Your task to perform on an android device: Is it going to rain tomorrow? Image 0: 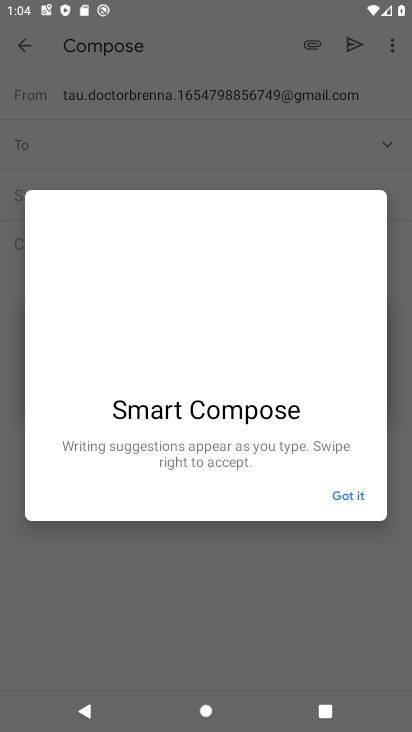
Step 0: press home button
Your task to perform on an android device: Is it going to rain tomorrow? Image 1: 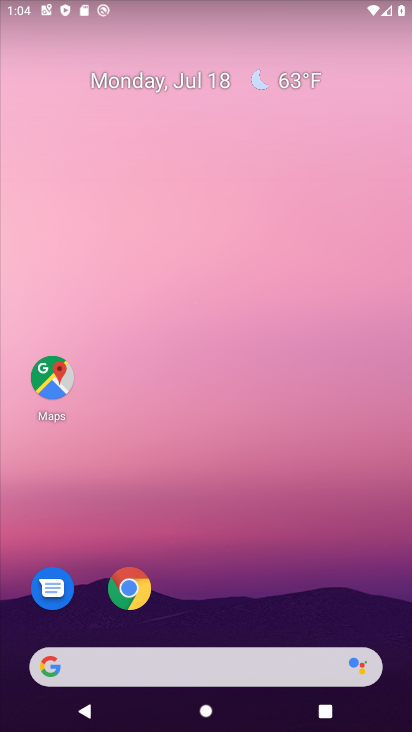
Step 1: click (188, 651)
Your task to perform on an android device: Is it going to rain tomorrow? Image 2: 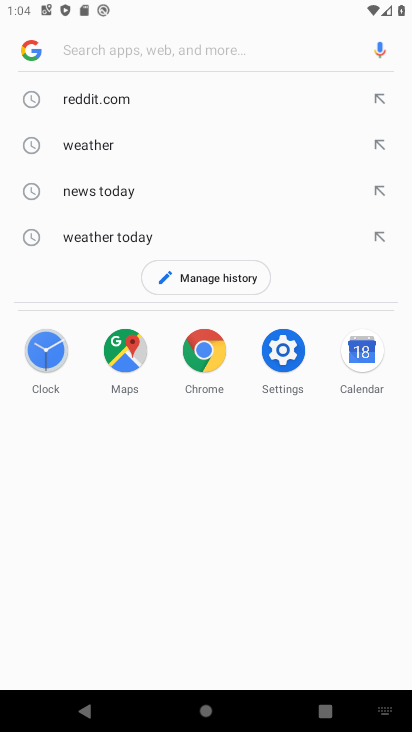
Step 2: click (95, 143)
Your task to perform on an android device: Is it going to rain tomorrow? Image 3: 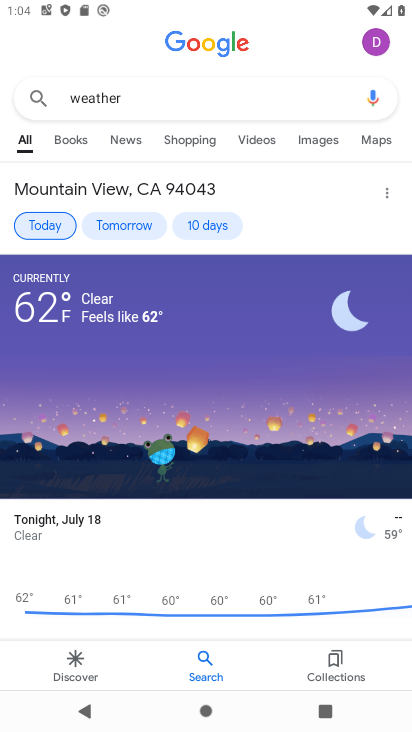
Step 3: click (125, 216)
Your task to perform on an android device: Is it going to rain tomorrow? Image 4: 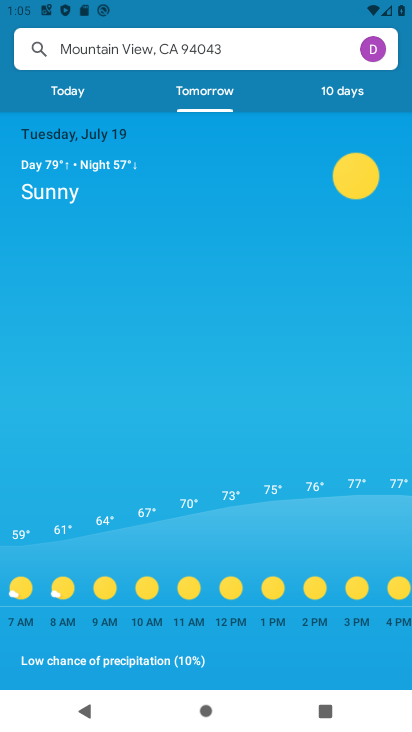
Step 4: task complete